Your task to perform on an android device: toggle translation in the chrome app Image 0: 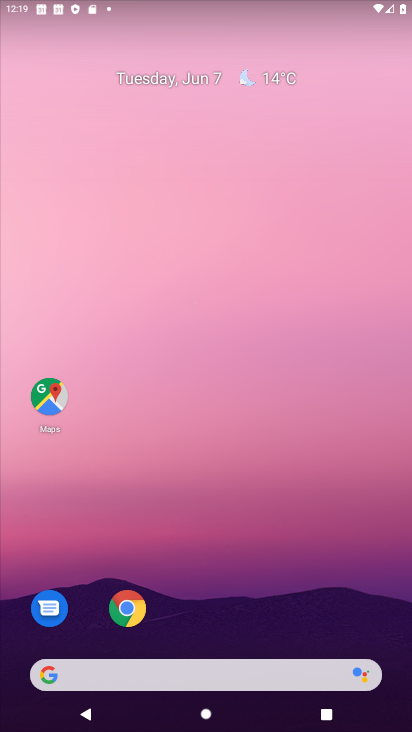
Step 0: press back button
Your task to perform on an android device: toggle translation in the chrome app Image 1: 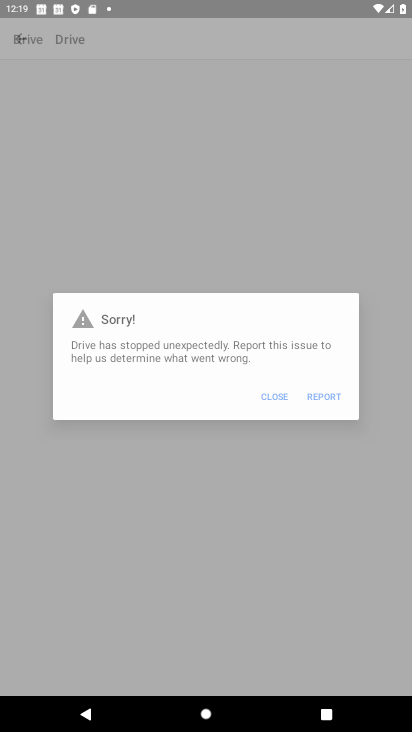
Step 1: press back button
Your task to perform on an android device: toggle translation in the chrome app Image 2: 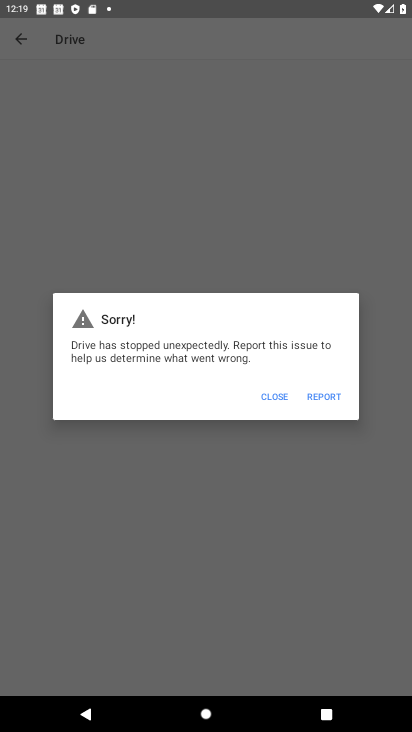
Step 2: click (154, 0)
Your task to perform on an android device: toggle translation in the chrome app Image 3: 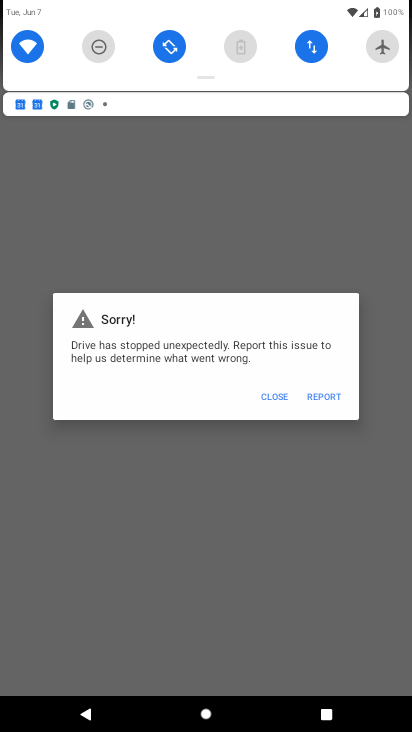
Step 3: press back button
Your task to perform on an android device: toggle translation in the chrome app Image 4: 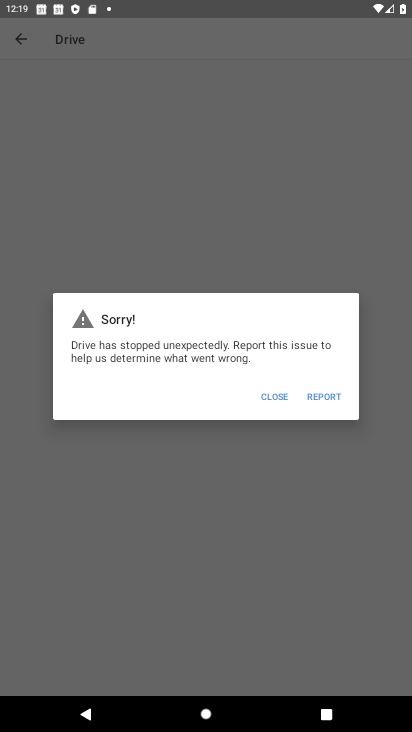
Step 4: press home button
Your task to perform on an android device: toggle translation in the chrome app Image 5: 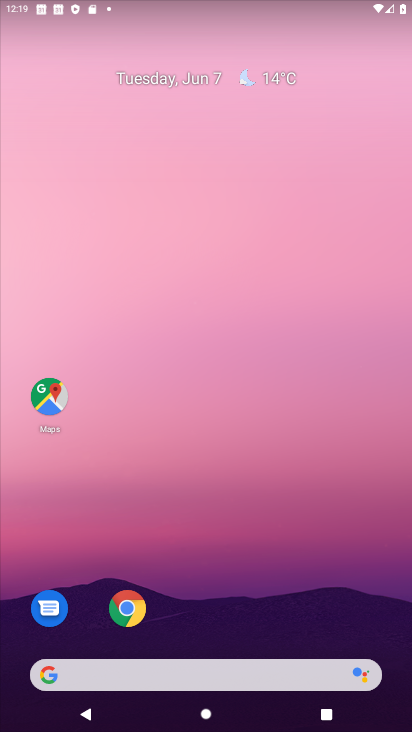
Step 5: drag from (269, 541) to (171, 33)
Your task to perform on an android device: toggle translation in the chrome app Image 6: 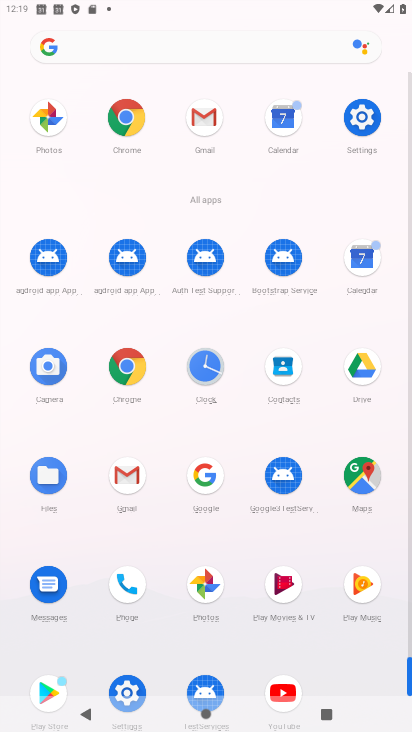
Step 6: drag from (13, 545) to (0, 199)
Your task to perform on an android device: toggle translation in the chrome app Image 7: 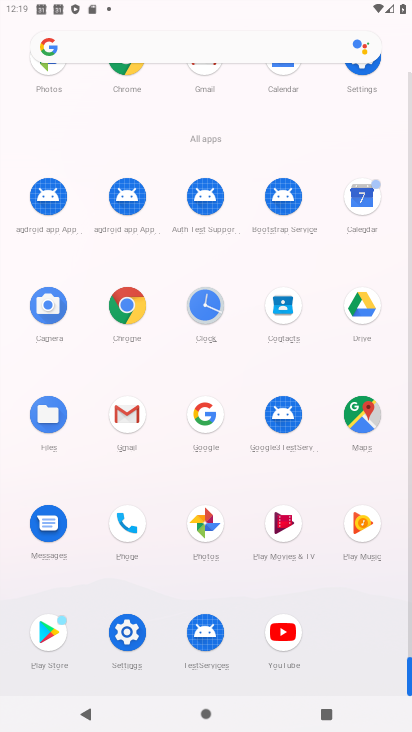
Step 7: click (124, 304)
Your task to perform on an android device: toggle translation in the chrome app Image 8: 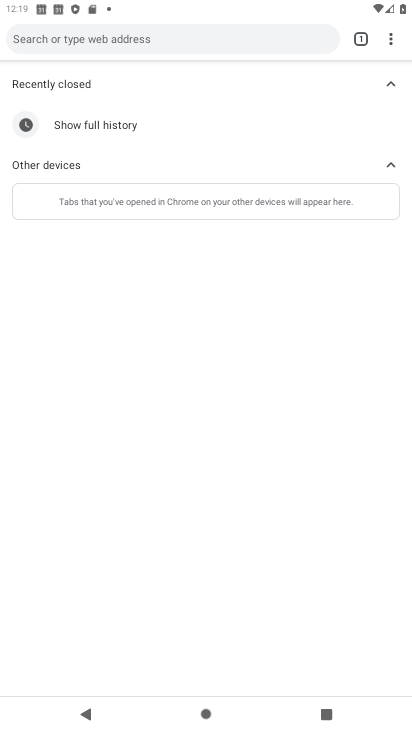
Step 8: drag from (388, 43) to (250, 322)
Your task to perform on an android device: toggle translation in the chrome app Image 9: 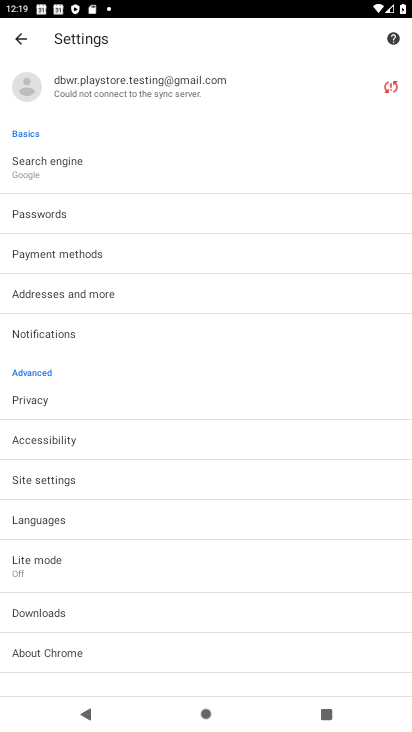
Step 9: click (89, 524)
Your task to perform on an android device: toggle translation in the chrome app Image 10: 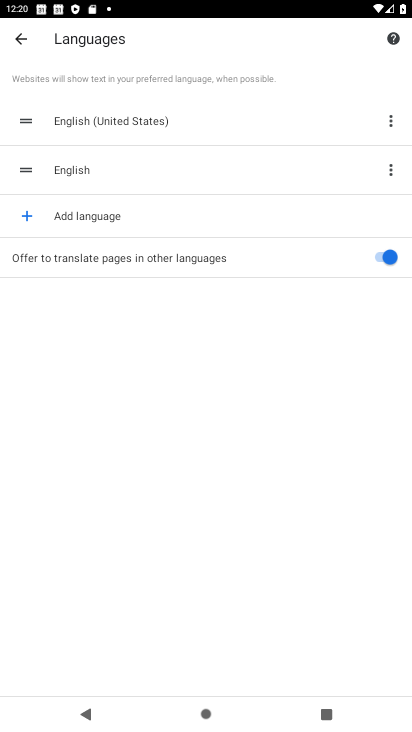
Step 10: click (378, 255)
Your task to perform on an android device: toggle translation in the chrome app Image 11: 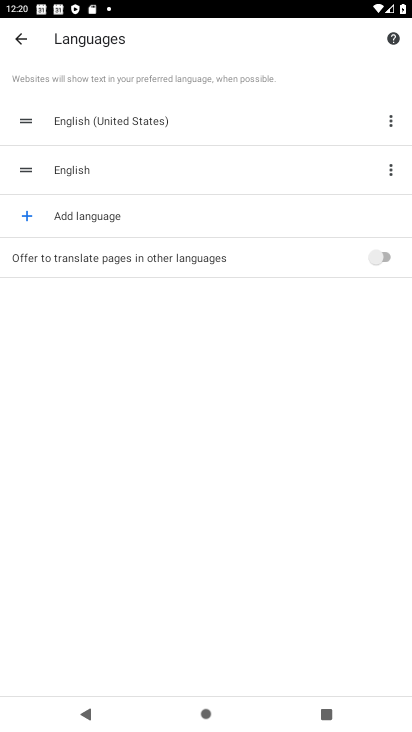
Step 11: task complete